Your task to perform on an android device: Search for sushi restaurants on Maps Image 0: 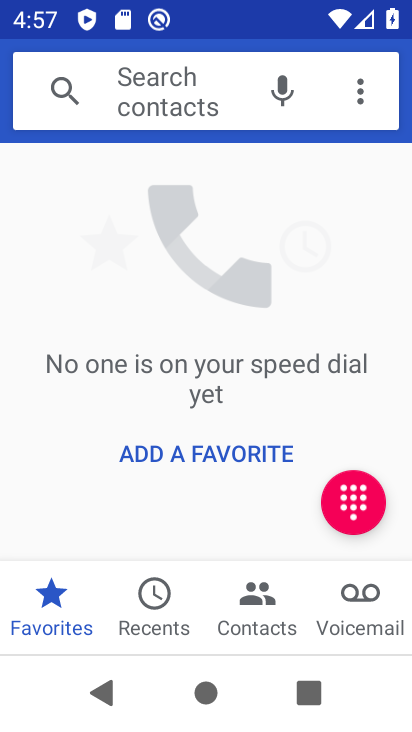
Step 0: press home button
Your task to perform on an android device: Search for sushi restaurants on Maps Image 1: 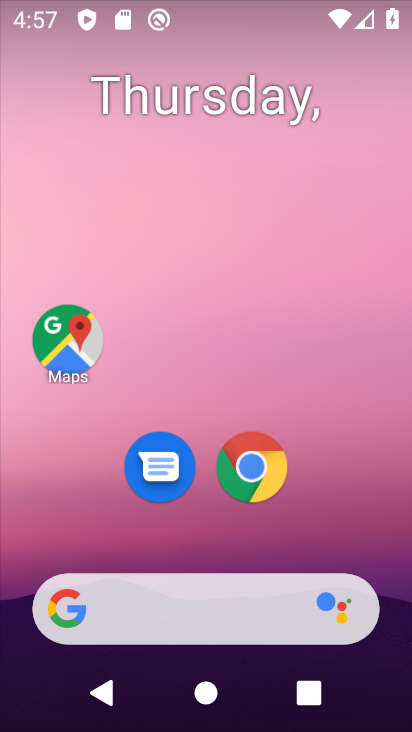
Step 1: click (82, 330)
Your task to perform on an android device: Search for sushi restaurants on Maps Image 2: 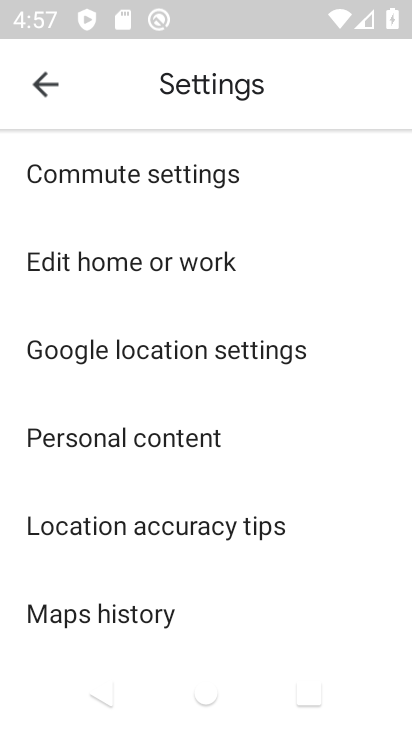
Step 2: click (48, 91)
Your task to perform on an android device: Search for sushi restaurants on Maps Image 3: 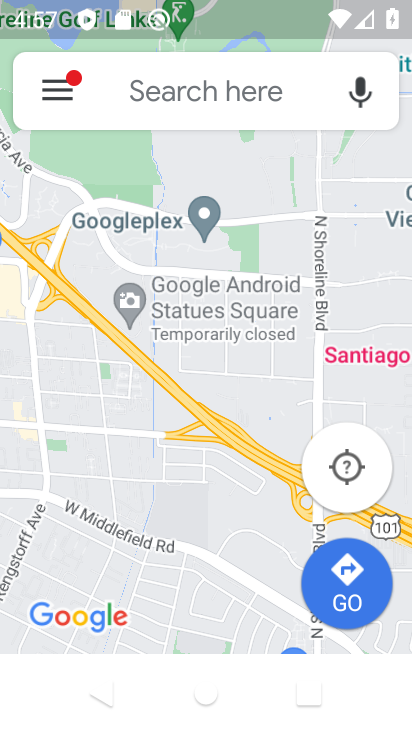
Step 3: click (179, 114)
Your task to perform on an android device: Search for sushi restaurants on Maps Image 4: 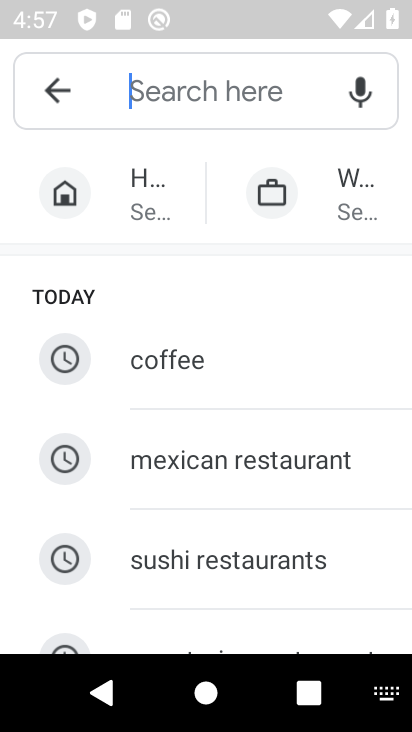
Step 4: click (284, 546)
Your task to perform on an android device: Search for sushi restaurants on Maps Image 5: 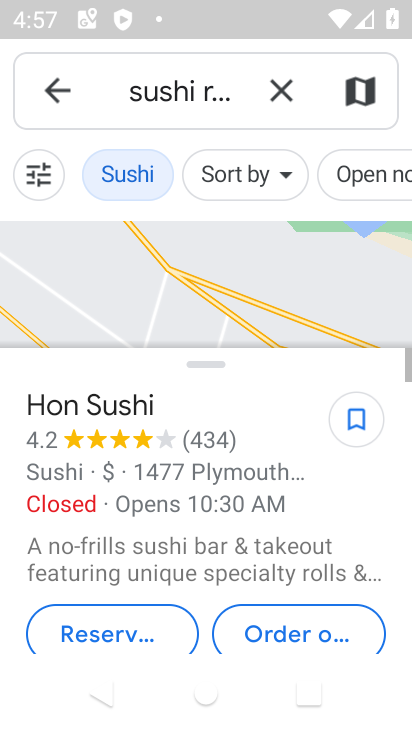
Step 5: task complete